Your task to perform on an android device: turn off priority inbox in the gmail app Image 0: 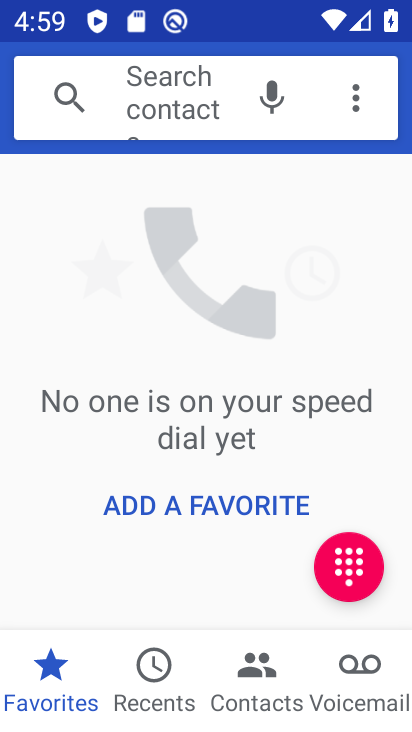
Step 0: press back button
Your task to perform on an android device: turn off priority inbox in the gmail app Image 1: 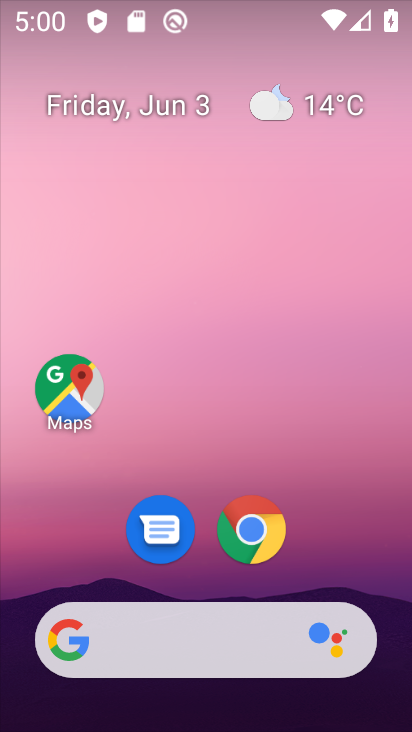
Step 1: drag from (179, 574) to (271, 34)
Your task to perform on an android device: turn off priority inbox in the gmail app Image 2: 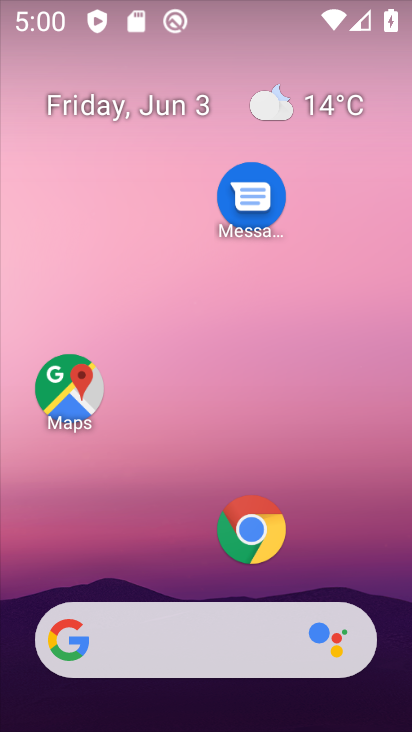
Step 2: drag from (169, 445) to (232, 53)
Your task to perform on an android device: turn off priority inbox in the gmail app Image 3: 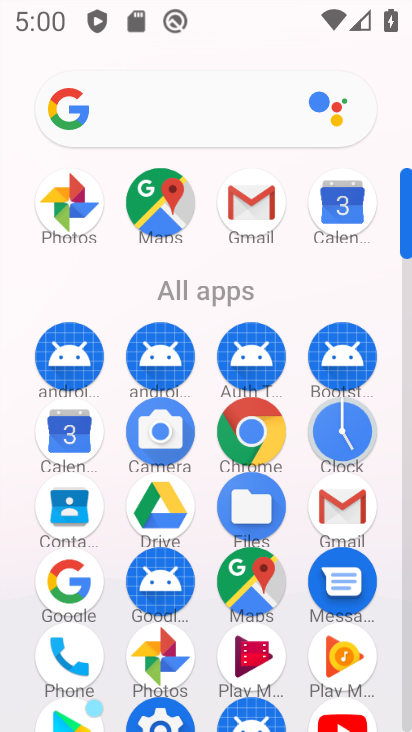
Step 3: click (247, 210)
Your task to perform on an android device: turn off priority inbox in the gmail app Image 4: 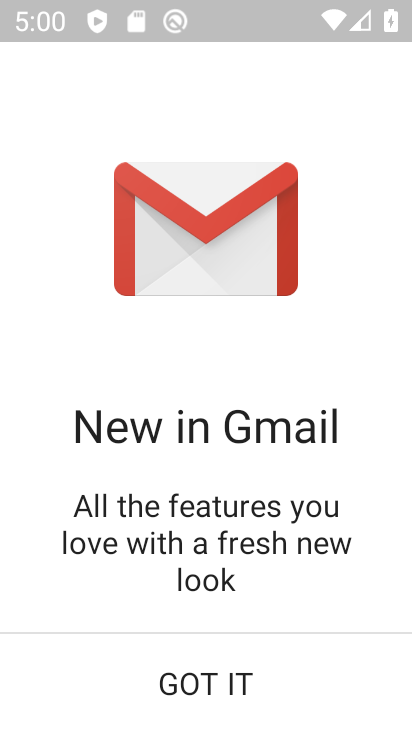
Step 4: click (197, 667)
Your task to perform on an android device: turn off priority inbox in the gmail app Image 5: 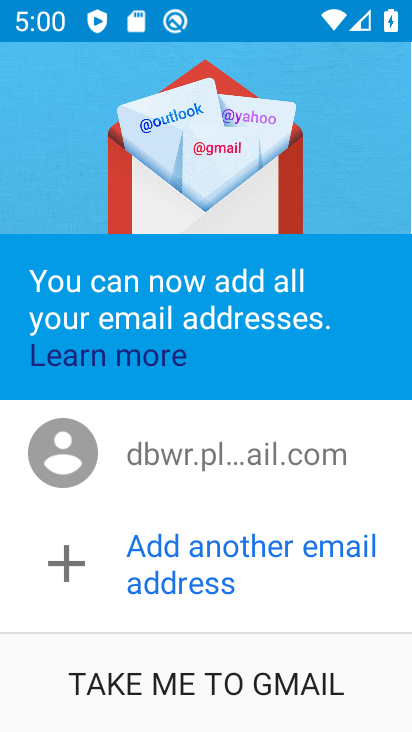
Step 5: click (191, 671)
Your task to perform on an android device: turn off priority inbox in the gmail app Image 6: 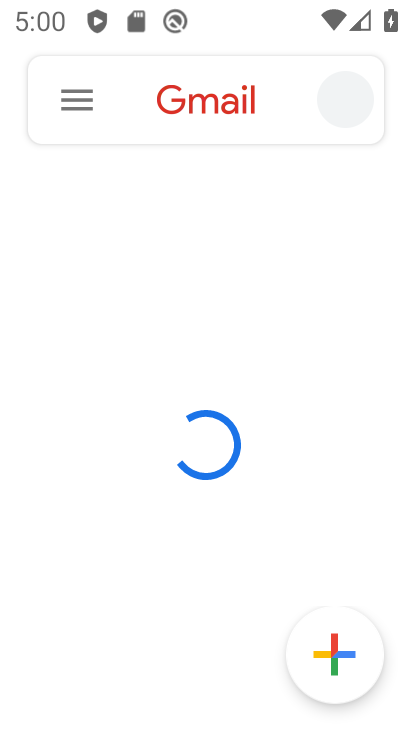
Step 6: click (65, 104)
Your task to perform on an android device: turn off priority inbox in the gmail app Image 7: 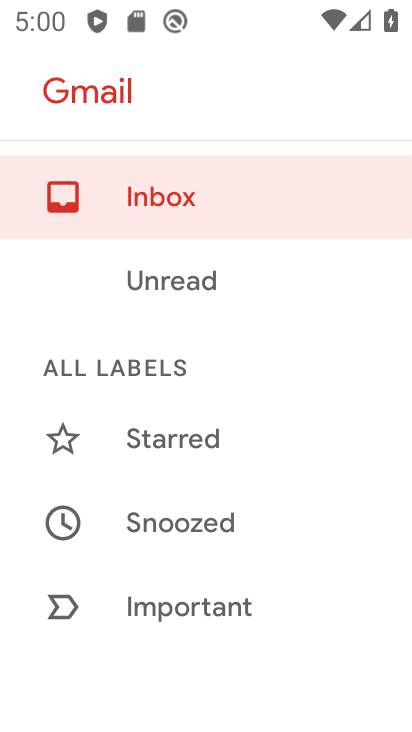
Step 7: drag from (167, 592) to (261, 50)
Your task to perform on an android device: turn off priority inbox in the gmail app Image 8: 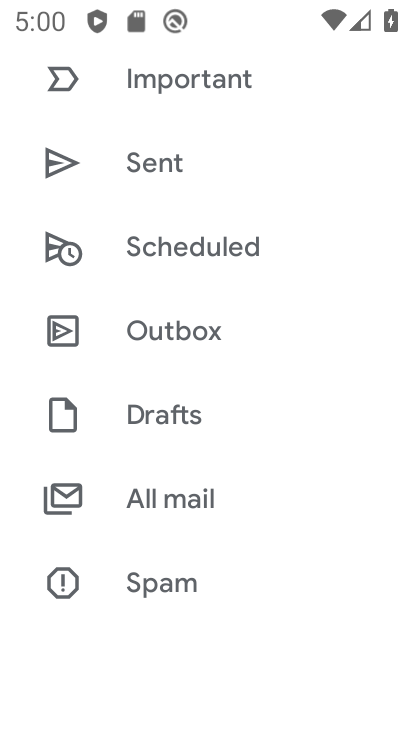
Step 8: drag from (179, 561) to (273, 54)
Your task to perform on an android device: turn off priority inbox in the gmail app Image 9: 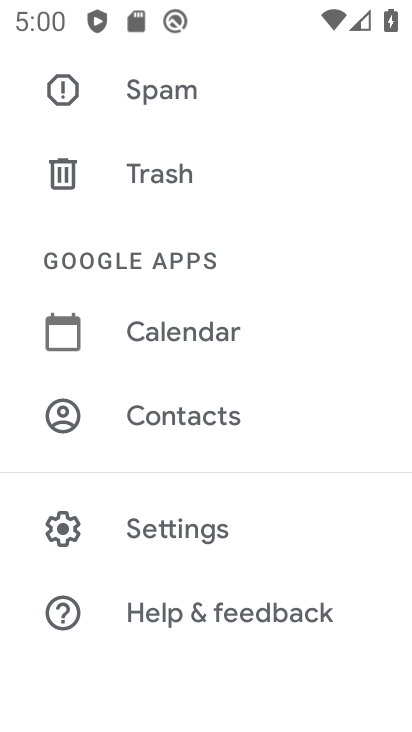
Step 9: click (178, 535)
Your task to perform on an android device: turn off priority inbox in the gmail app Image 10: 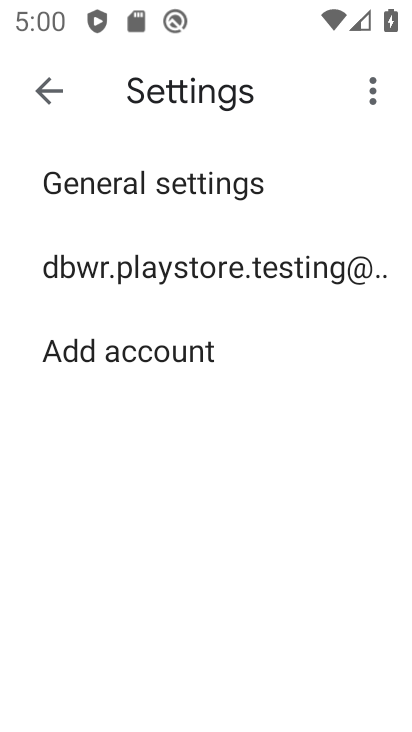
Step 10: click (149, 265)
Your task to perform on an android device: turn off priority inbox in the gmail app Image 11: 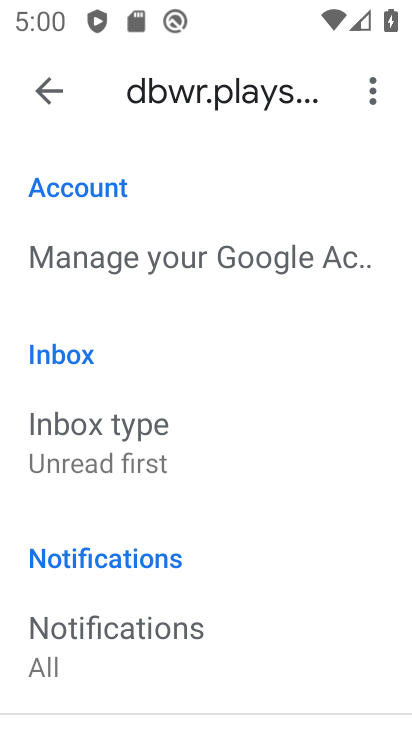
Step 11: click (97, 439)
Your task to perform on an android device: turn off priority inbox in the gmail app Image 12: 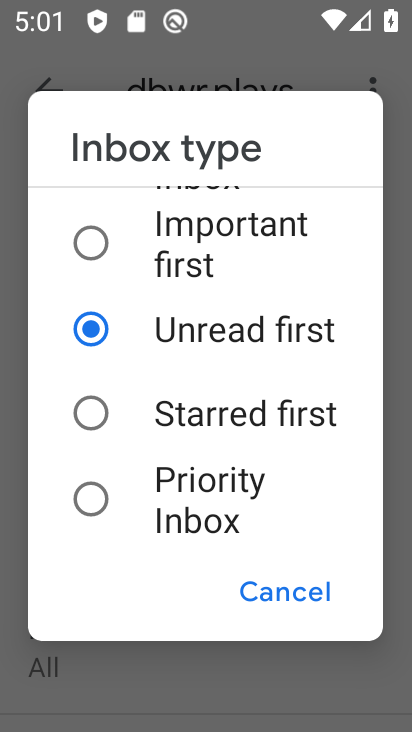
Step 12: task complete